Your task to perform on an android device: What are the new products by Samsung? Image 0: 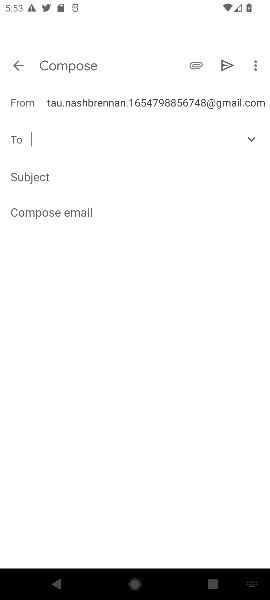
Step 0: click (133, 585)
Your task to perform on an android device: What are the new products by Samsung? Image 1: 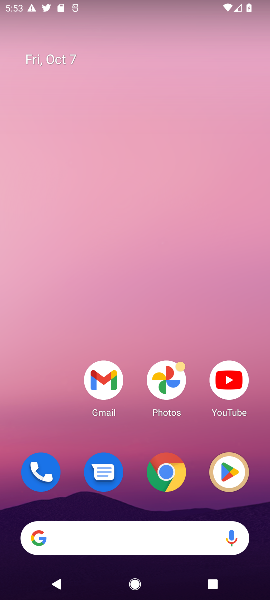
Step 1: click (174, 485)
Your task to perform on an android device: What are the new products by Samsung? Image 2: 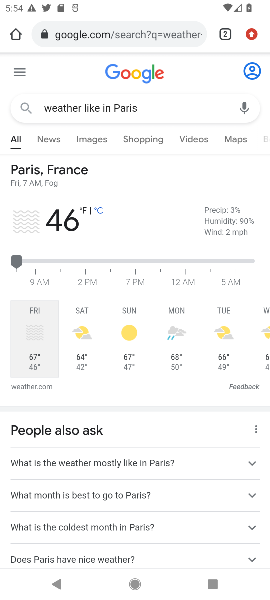
Step 2: click (124, 27)
Your task to perform on an android device: What are the new products by Samsung? Image 3: 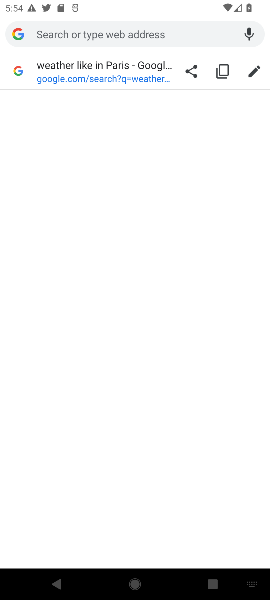
Step 3: click (128, 35)
Your task to perform on an android device: What are the new products by Samsung? Image 4: 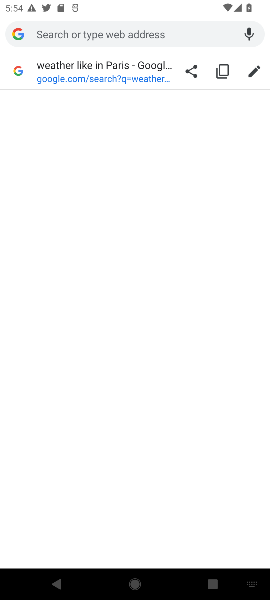
Step 4: type "new products by Samsung"
Your task to perform on an android device: What are the new products by Samsung? Image 5: 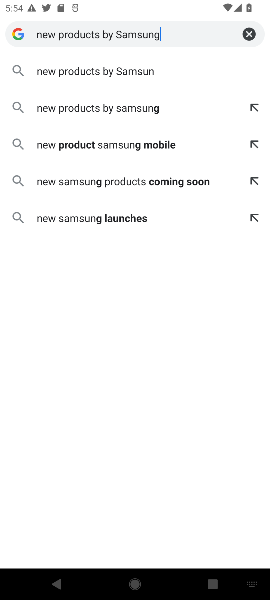
Step 5: type ""
Your task to perform on an android device: What are the new products by Samsung? Image 6: 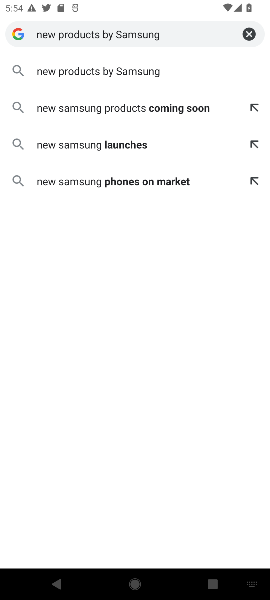
Step 6: press enter
Your task to perform on an android device: What are the new products by Samsung? Image 7: 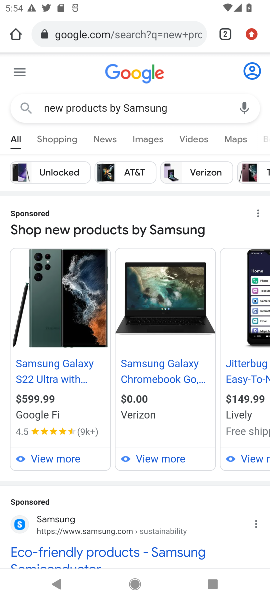
Step 7: task complete